Your task to perform on an android device: Go to display settings Image 0: 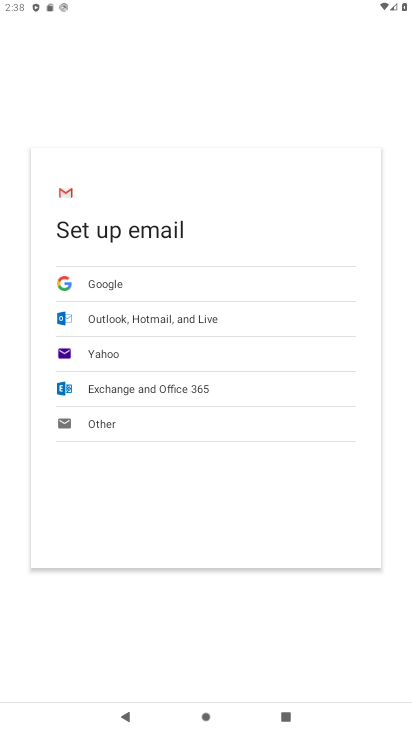
Step 0: press home button
Your task to perform on an android device: Go to display settings Image 1: 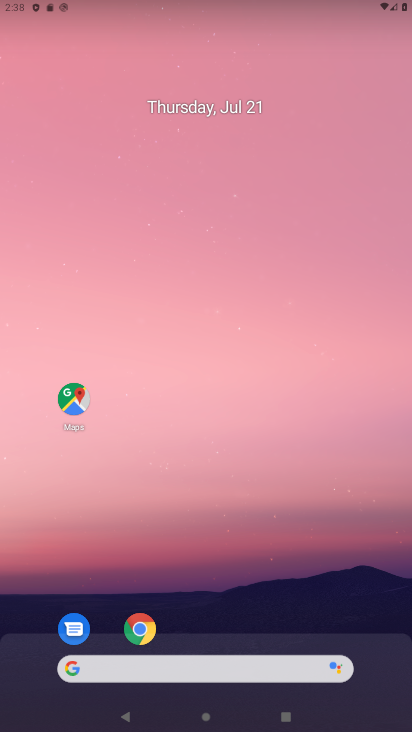
Step 1: drag from (182, 640) to (165, 83)
Your task to perform on an android device: Go to display settings Image 2: 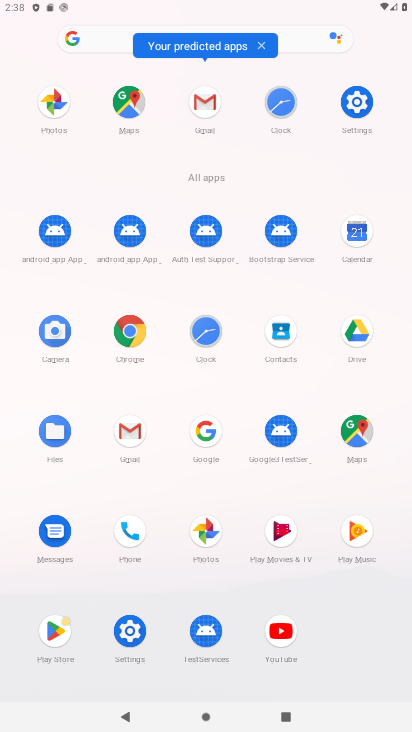
Step 2: click (131, 632)
Your task to perform on an android device: Go to display settings Image 3: 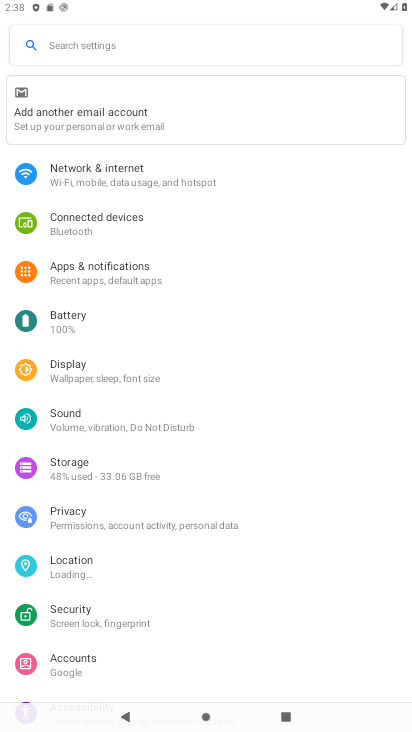
Step 3: click (72, 374)
Your task to perform on an android device: Go to display settings Image 4: 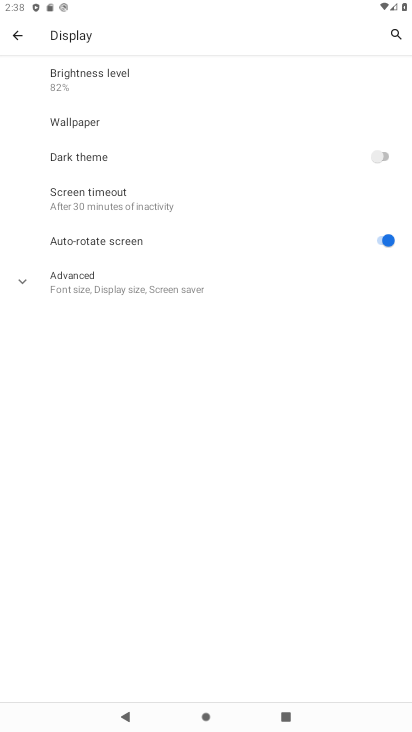
Step 4: task complete